Your task to perform on an android device: see sites visited before in the chrome app Image 0: 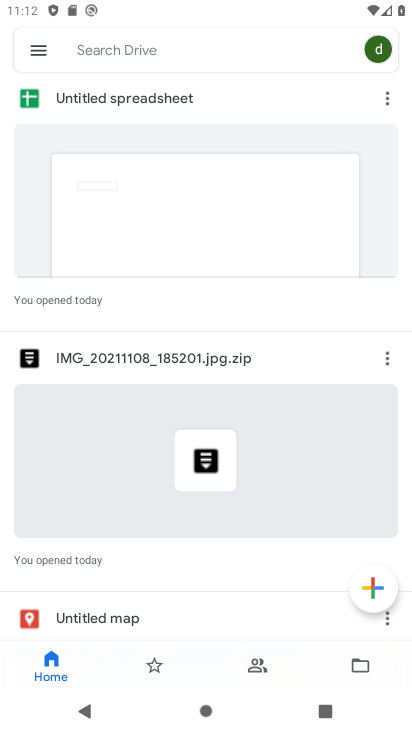
Step 0: press home button
Your task to perform on an android device: see sites visited before in the chrome app Image 1: 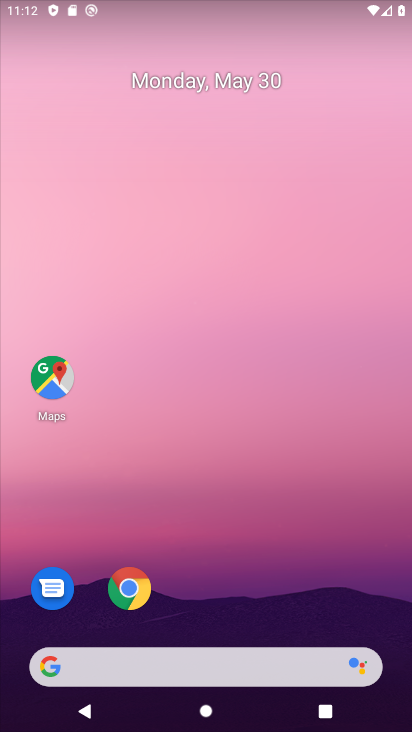
Step 1: click (133, 592)
Your task to perform on an android device: see sites visited before in the chrome app Image 2: 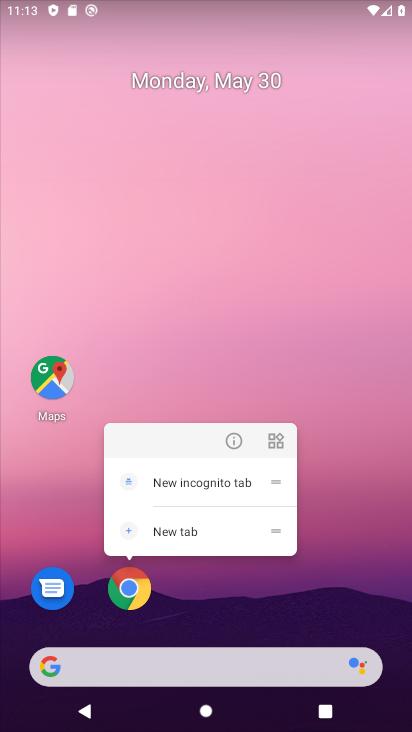
Step 2: click (116, 593)
Your task to perform on an android device: see sites visited before in the chrome app Image 3: 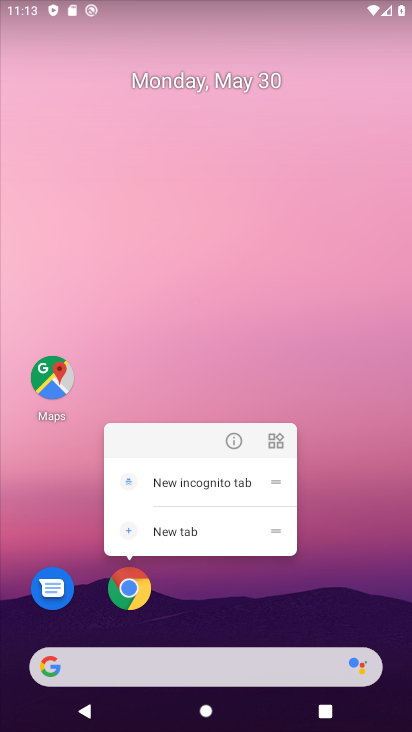
Step 3: click (122, 596)
Your task to perform on an android device: see sites visited before in the chrome app Image 4: 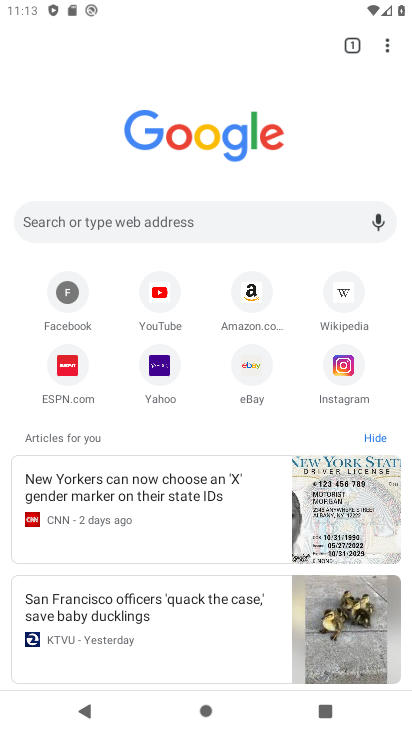
Step 4: click (387, 53)
Your task to perform on an android device: see sites visited before in the chrome app Image 5: 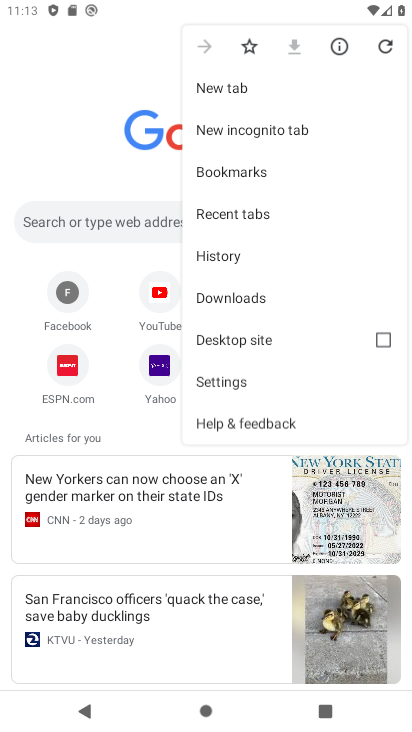
Step 5: click (386, 46)
Your task to perform on an android device: see sites visited before in the chrome app Image 6: 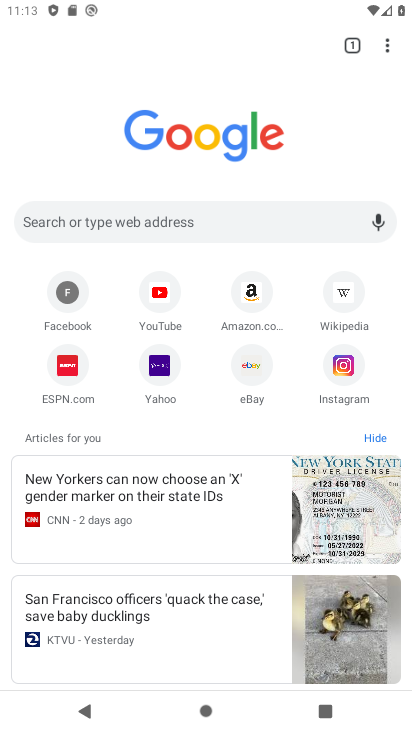
Step 6: click (388, 49)
Your task to perform on an android device: see sites visited before in the chrome app Image 7: 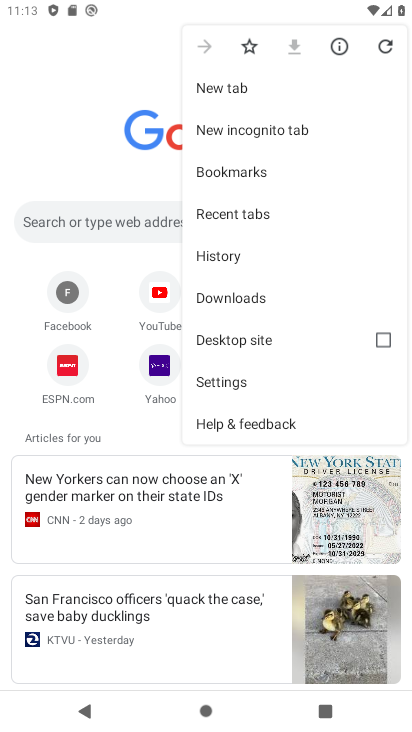
Step 7: click (231, 261)
Your task to perform on an android device: see sites visited before in the chrome app Image 8: 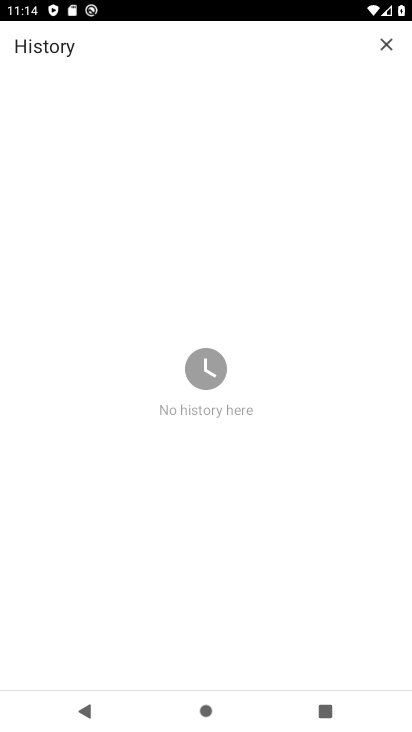
Step 8: task complete